Your task to perform on an android device: uninstall "HBO Max: Stream TV & Movies" Image 0: 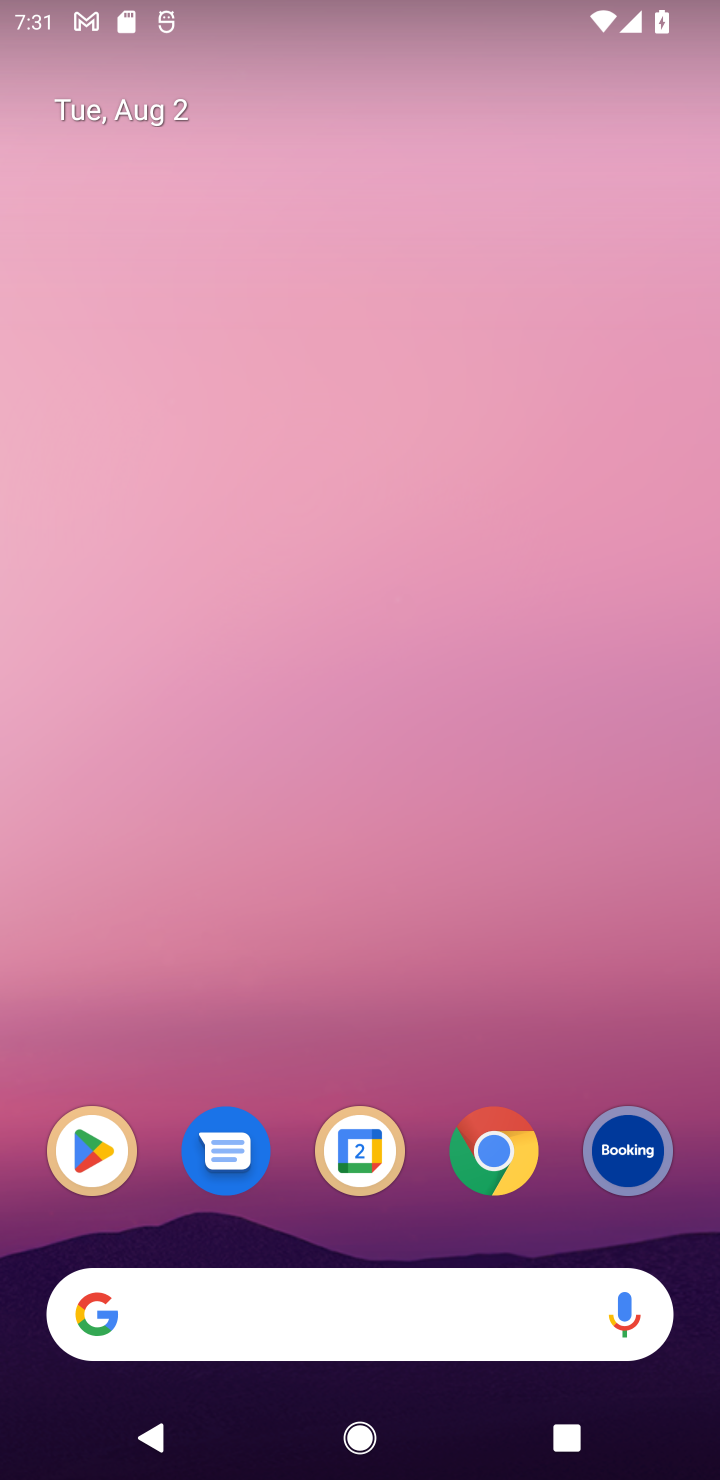
Step 0: drag from (369, 1237) to (445, 85)
Your task to perform on an android device: uninstall "HBO Max: Stream TV & Movies" Image 1: 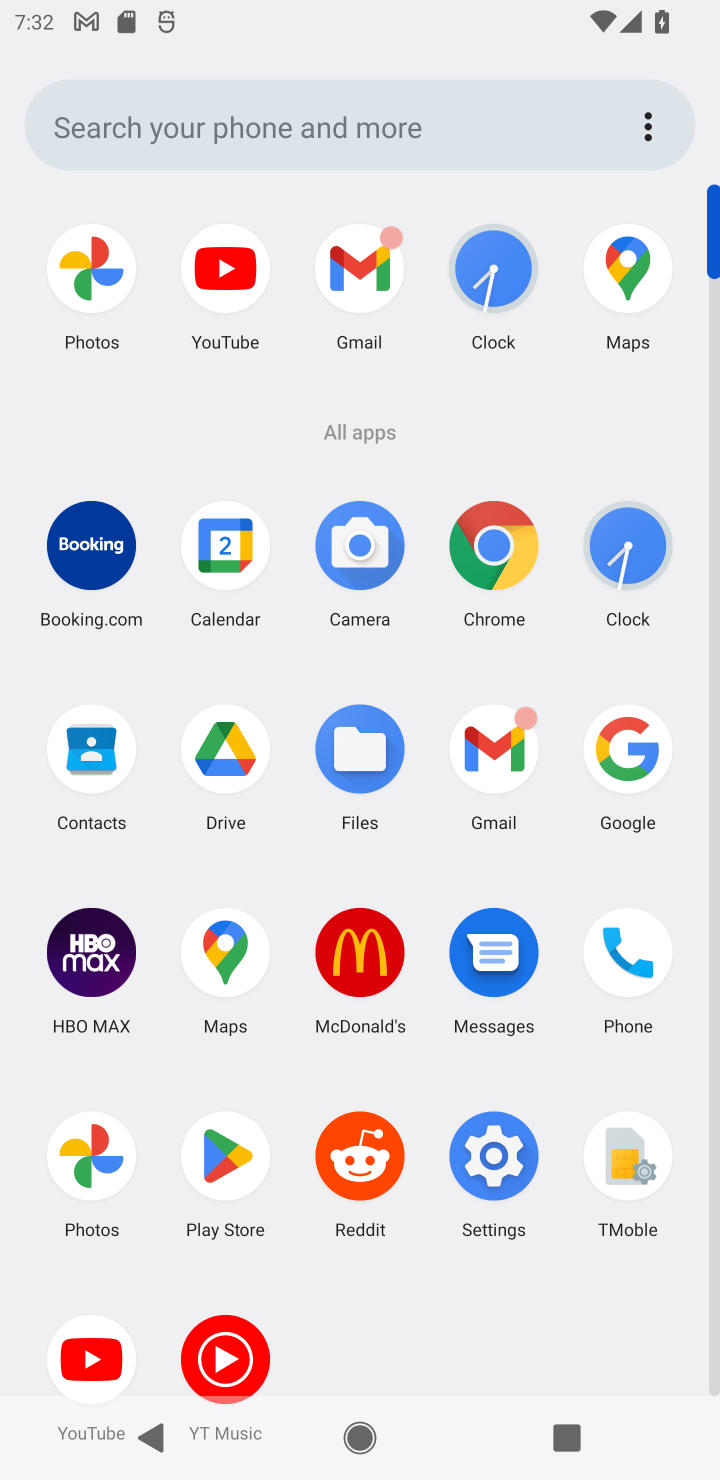
Step 1: click (242, 1142)
Your task to perform on an android device: uninstall "HBO Max: Stream TV & Movies" Image 2: 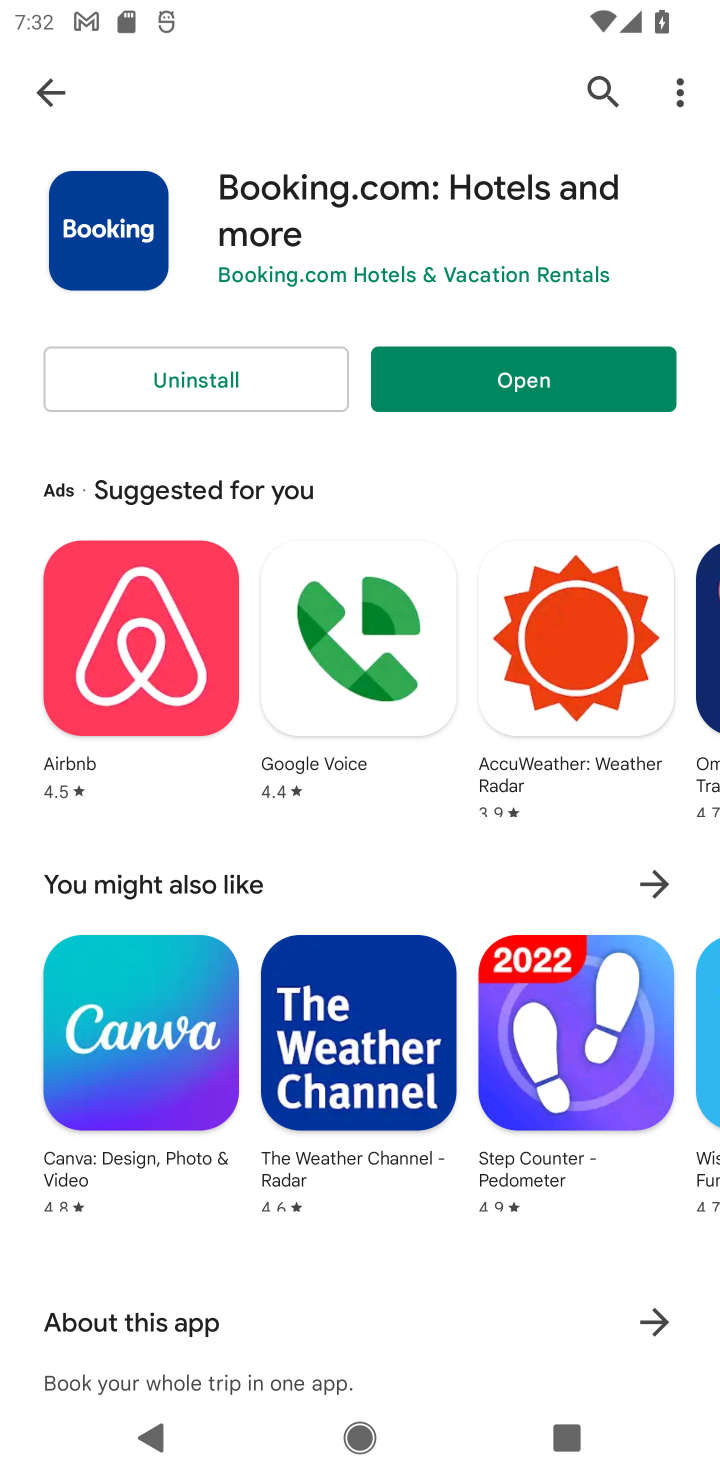
Step 2: click (52, 110)
Your task to perform on an android device: uninstall "HBO Max: Stream TV & Movies" Image 3: 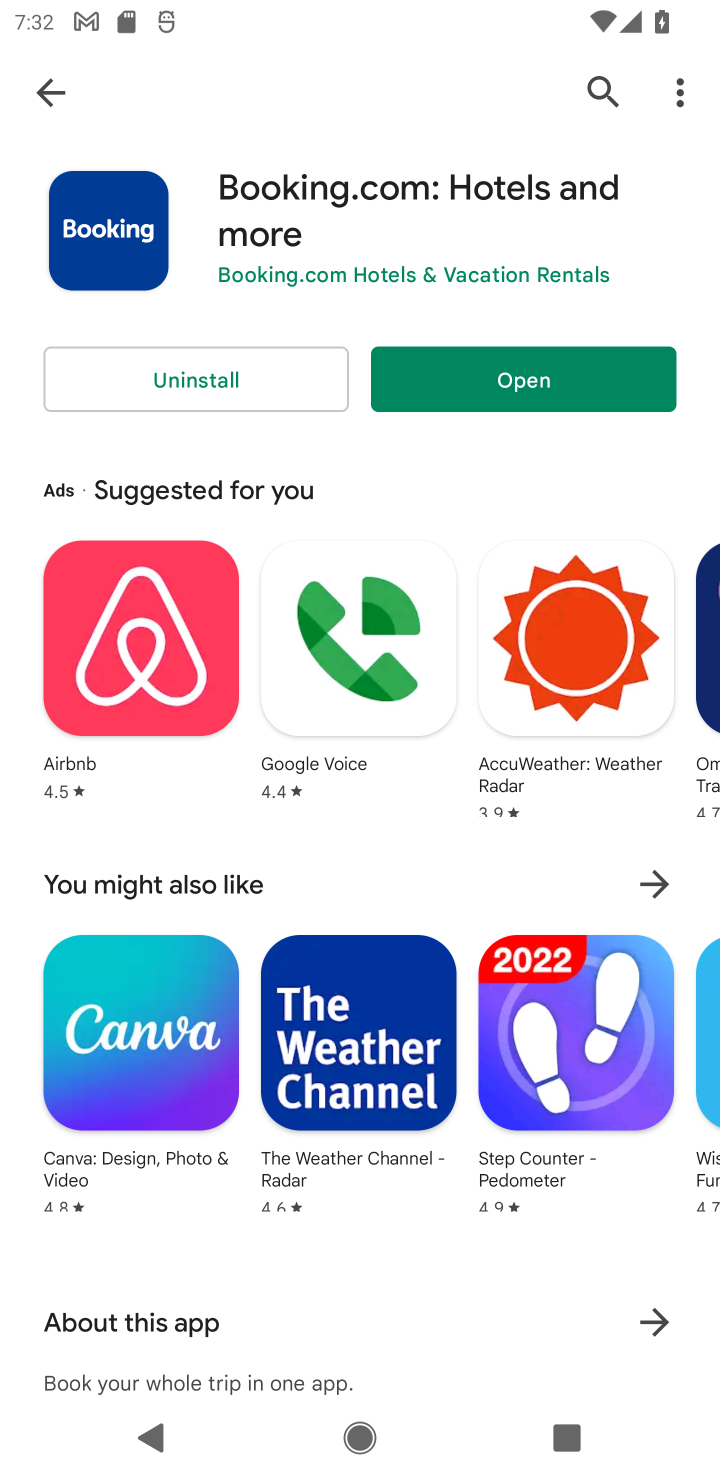
Step 3: click (39, 84)
Your task to perform on an android device: uninstall "HBO Max: Stream TV & Movies" Image 4: 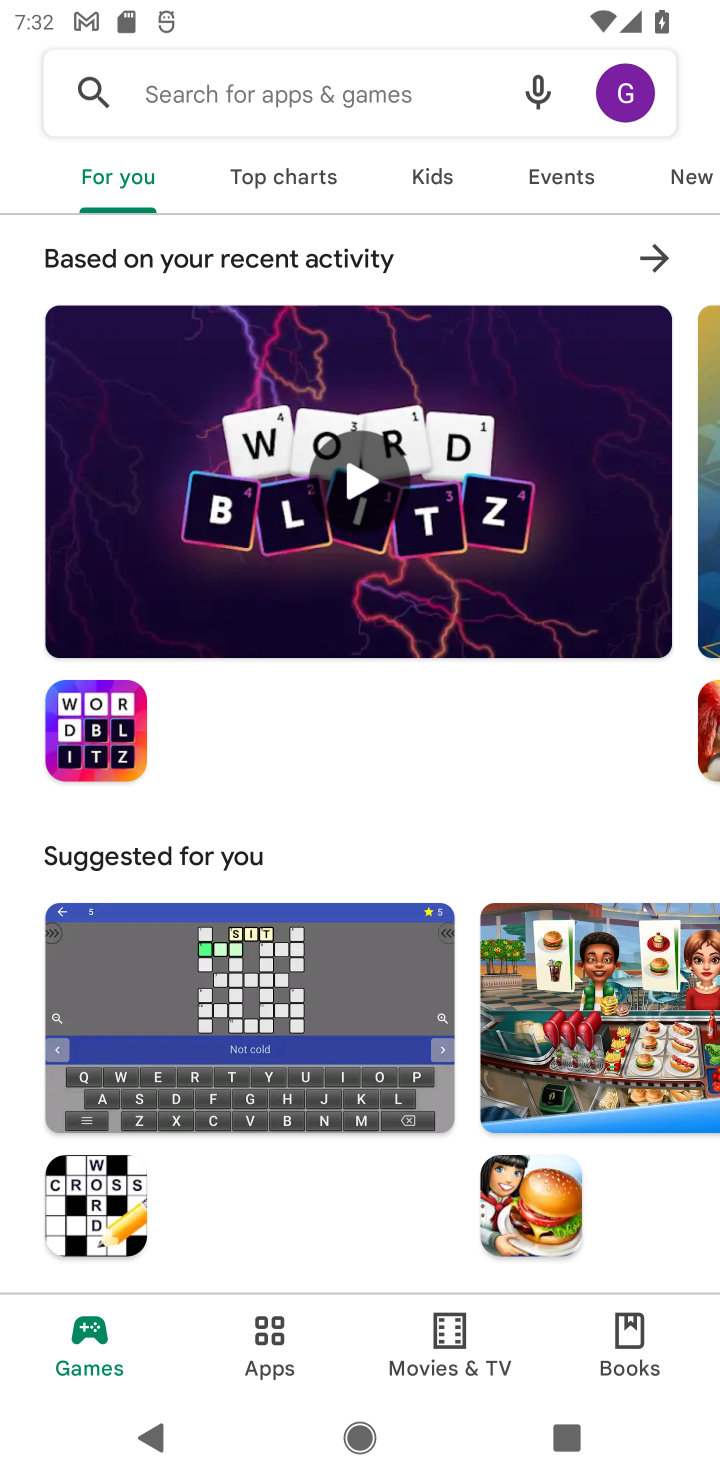
Step 4: click (266, 110)
Your task to perform on an android device: uninstall "HBO Max: Stream TV & Movies" Image 5: 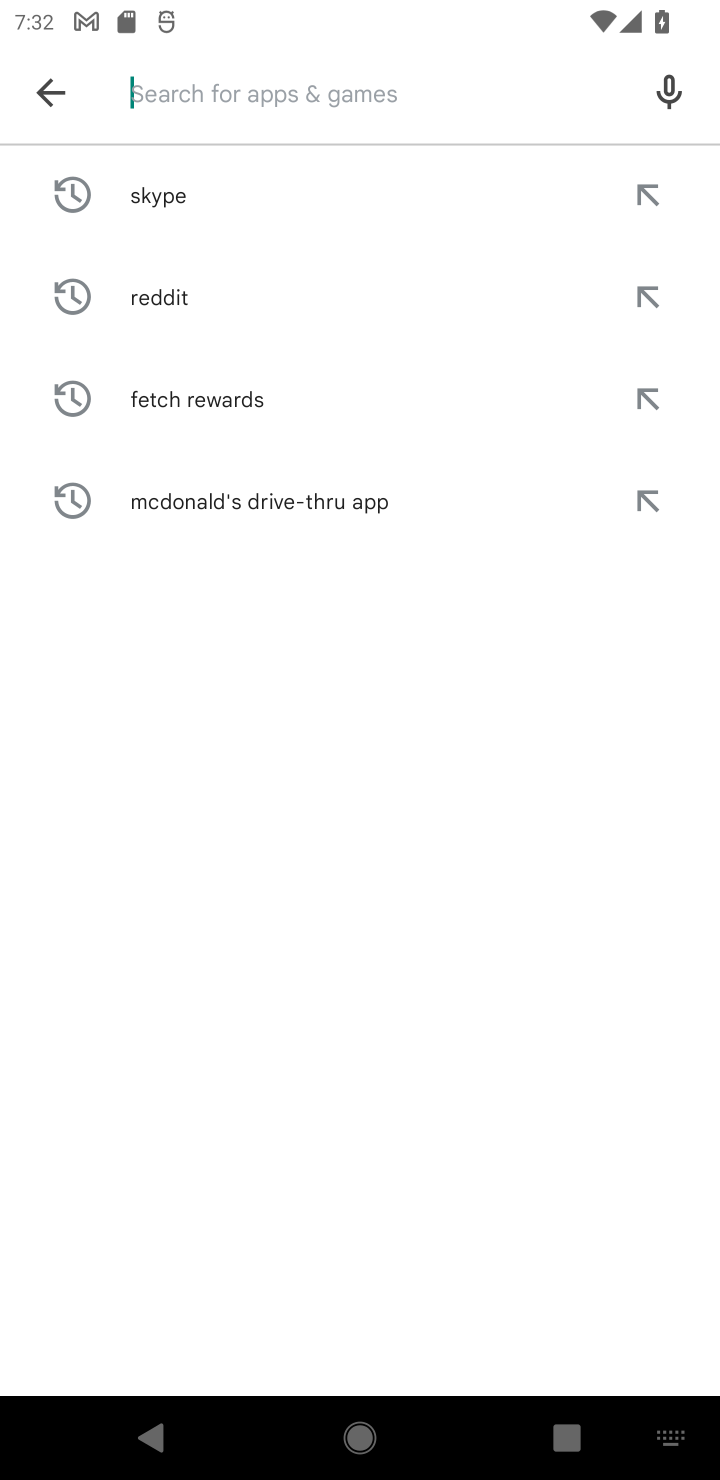
Step 5: type "HBO Max: Stream TV & Movies"
Your task to perform on an android device: uninstall "HBO Max: Stream TV & Movies" Image 6: 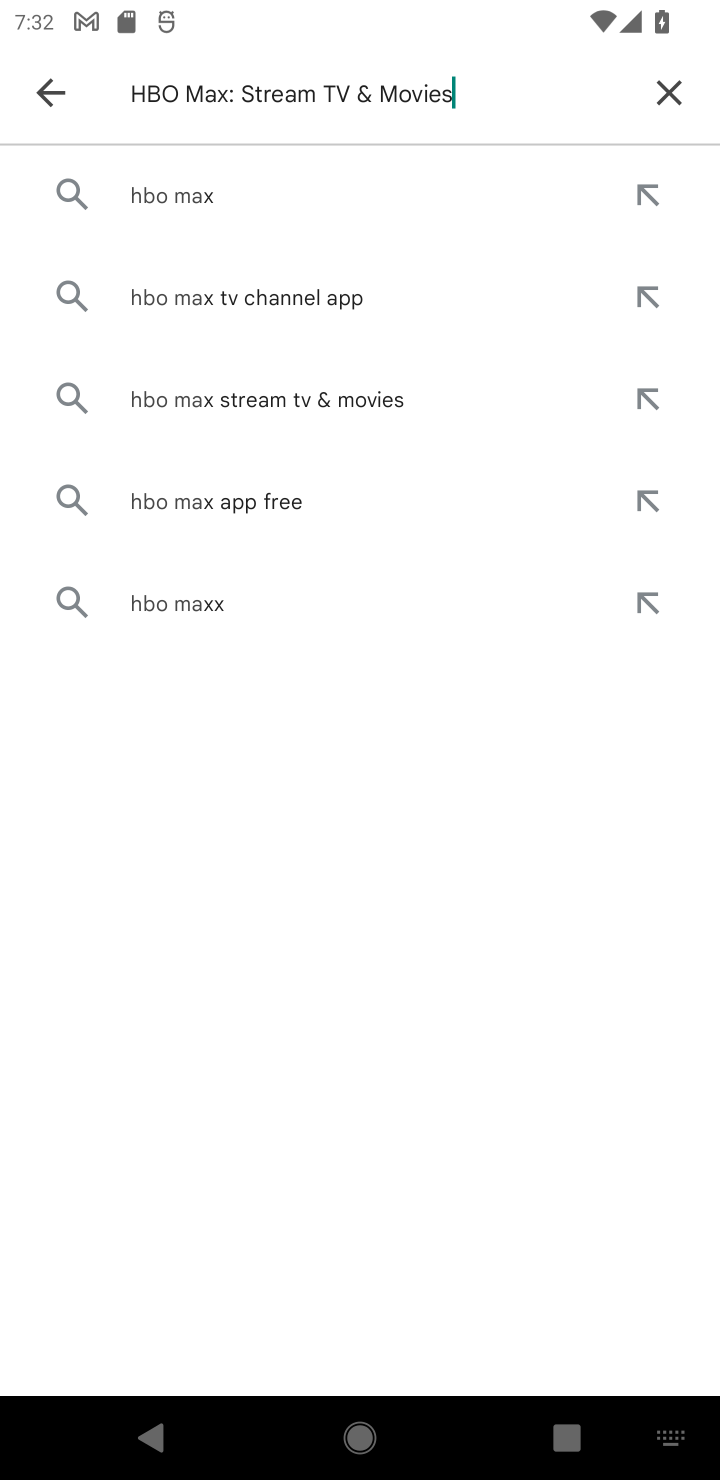
Step 6: type ""
Your task to perform on an android device: uninstall "HBO Max: Stream TV & Movies" Image 7: 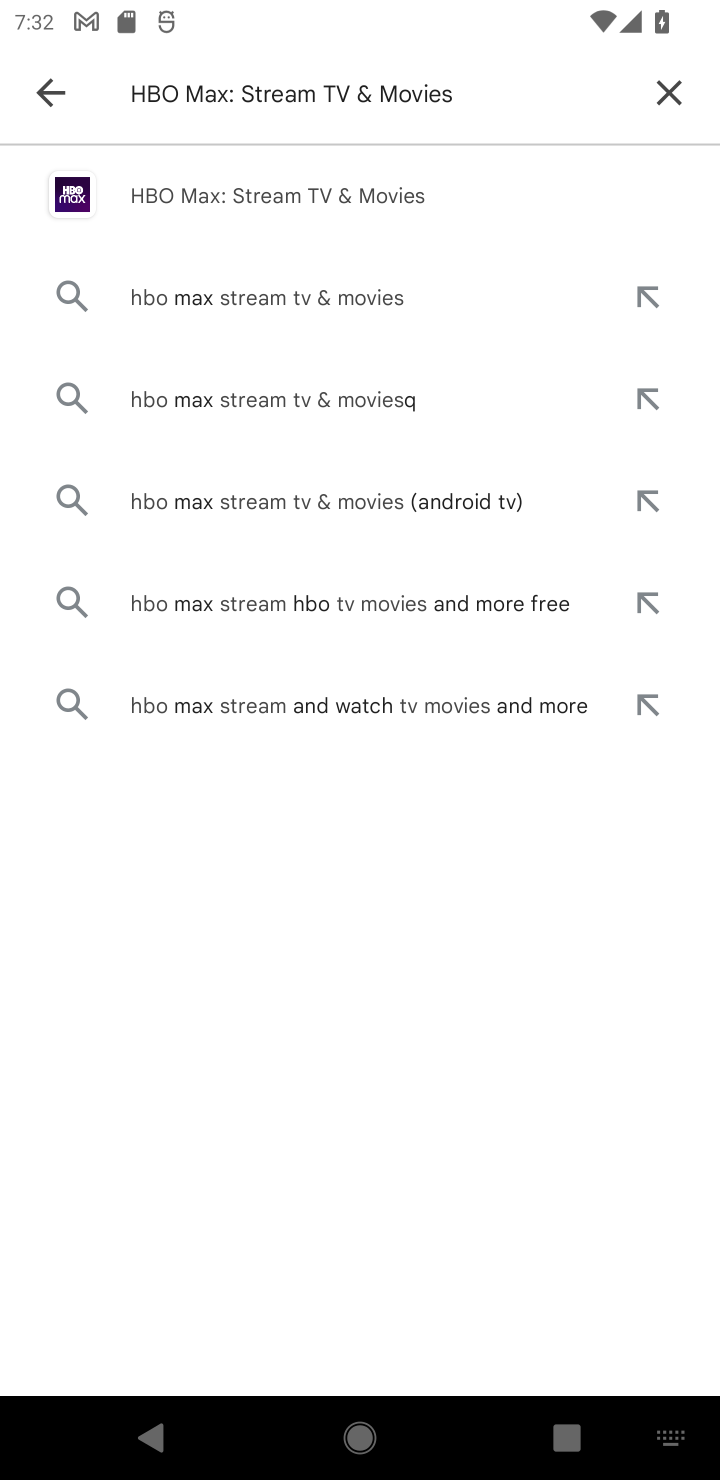
Step 7: click (100, 195)
Your task to perform on an android device: uninstall "HBO Max: Stream TV & Movies" Image 8: 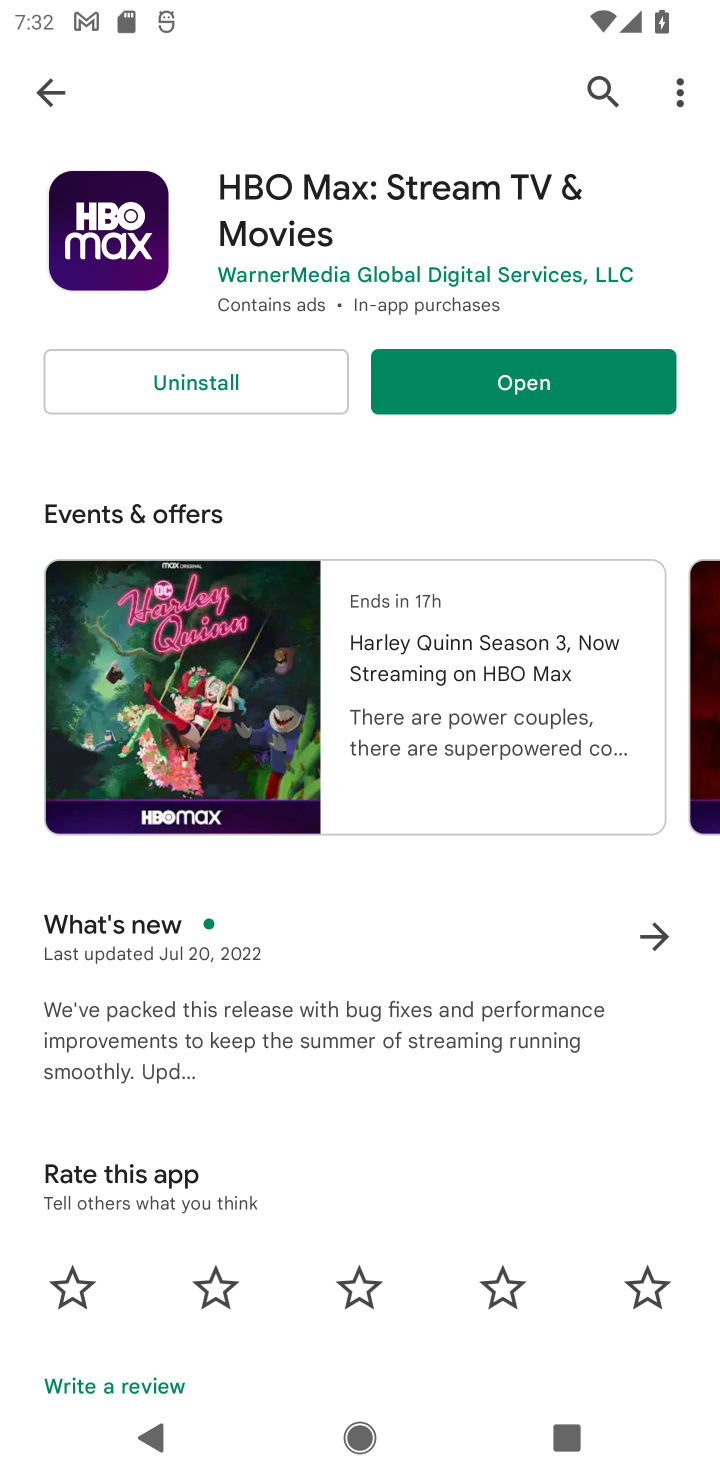
Step 8: click (290, 388)
Your task to perform on an android device: uninstall "HBO Max: Stream TV & Movies" Image 9: 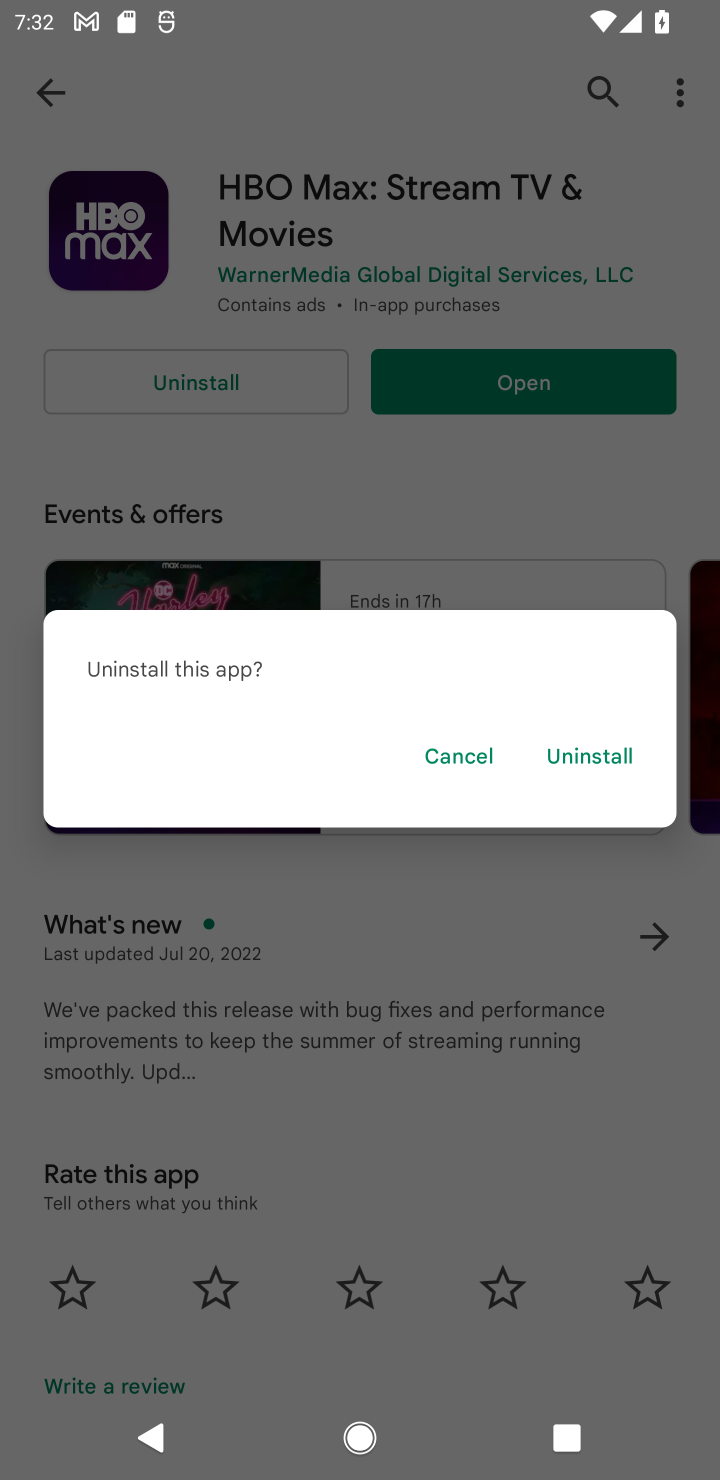
Step 9: click (614, 763)
Your task to perform on an android device: uninstall "HBO Max: Stream TV & Movies" Image 10: 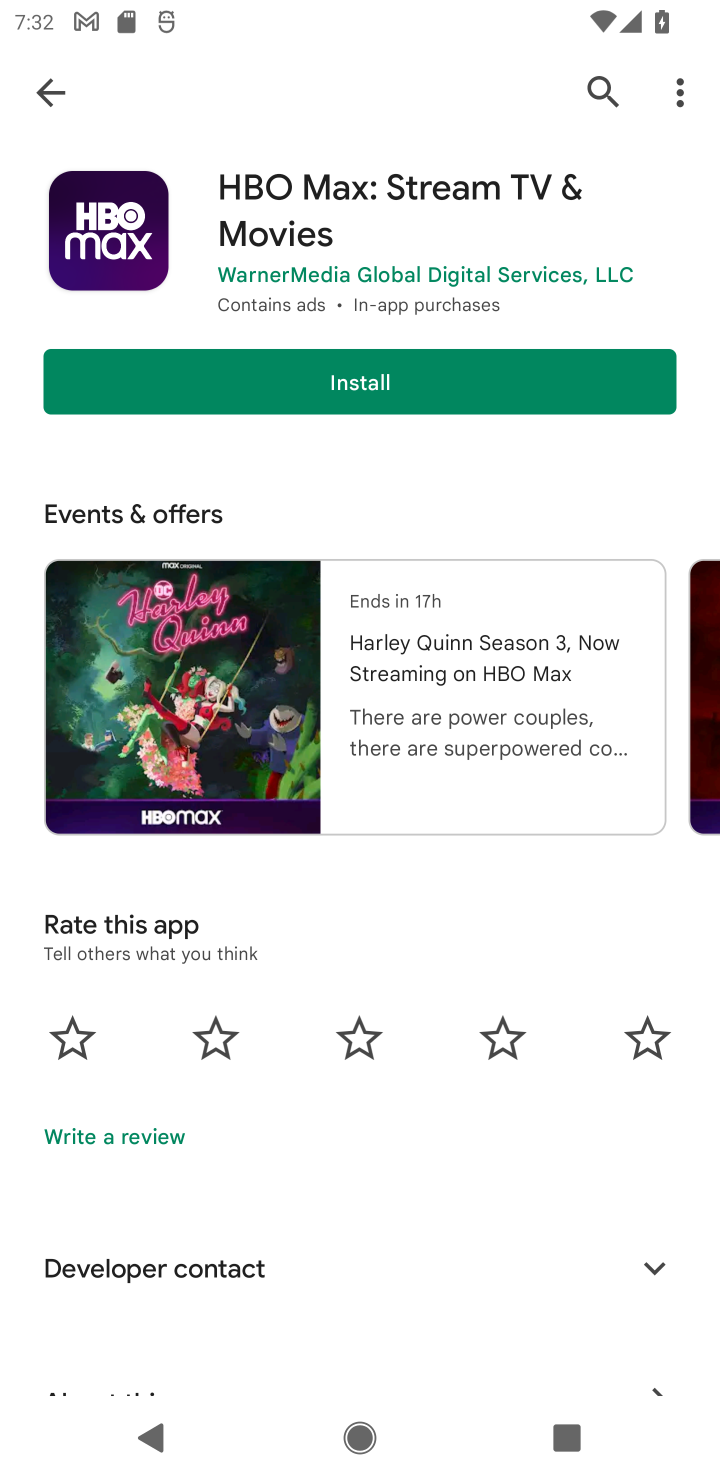
Step 10: task complete